Your task to perform on an android device: Search for pizza restaurants on Maps Image 0: 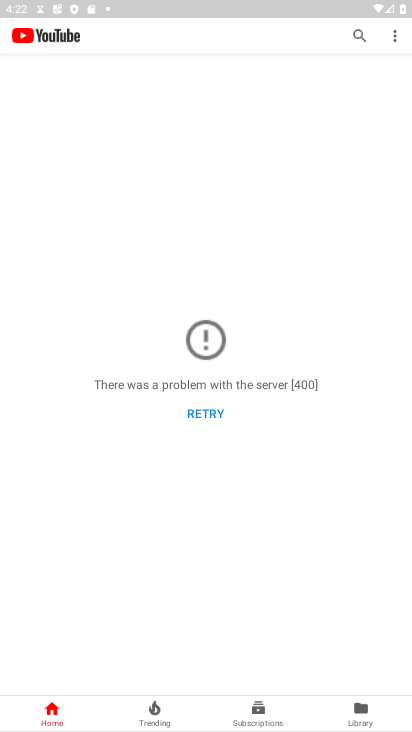
Step 0: press home button
Your task to perform on an android device: Search for pizza restaurants on Maps Image 1: 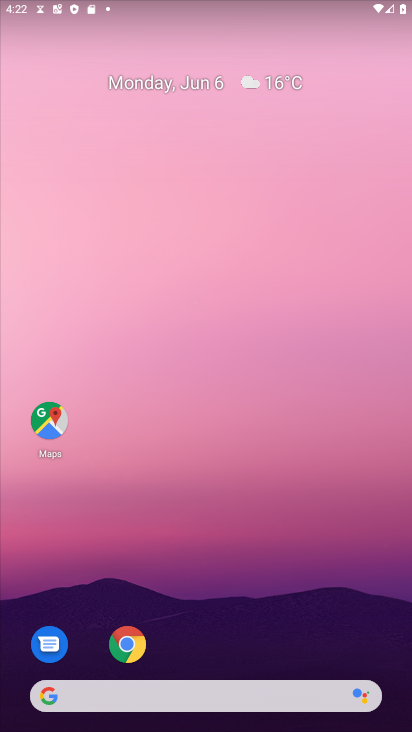
Step 1: click (28, 439)
Your task to perform on an android device: Search for pizza restaurants on Maps Image 2: 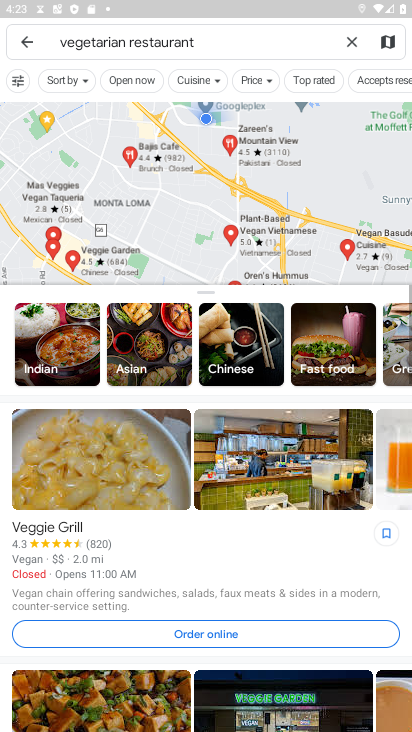
Step 2: click (357, 42)
Your task to perform on an android device: Search for pizza restaurants on Maps Image 3: 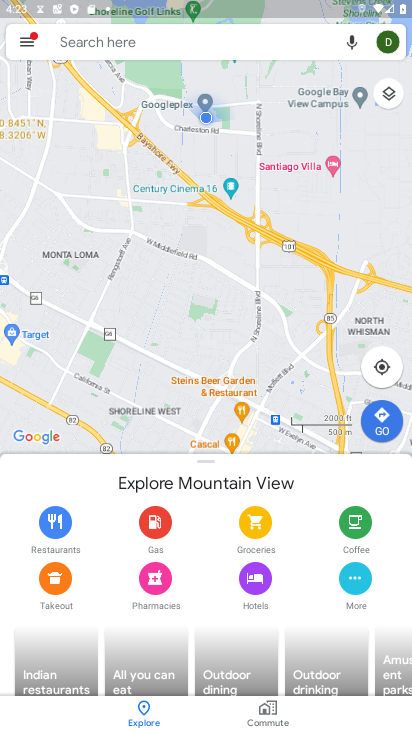
Step 3: click (125, 40)
Your task to perform on an android device: Search for pizza restaurants on Maps Image 4: 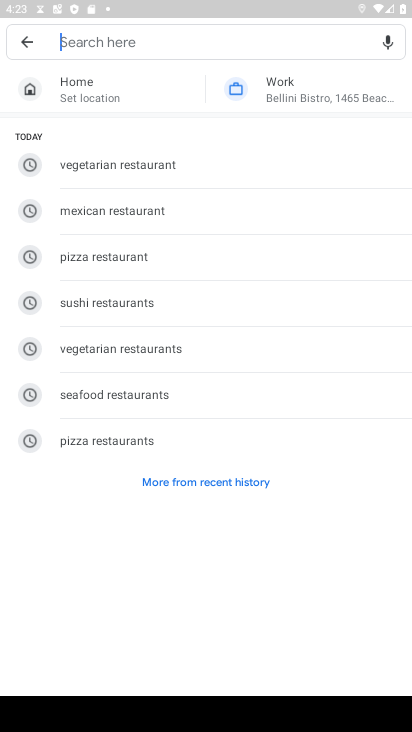
Step 4: click (132, 441)
Your task to perform on an android device: Search for pizza restaurants on Maps Image 5: 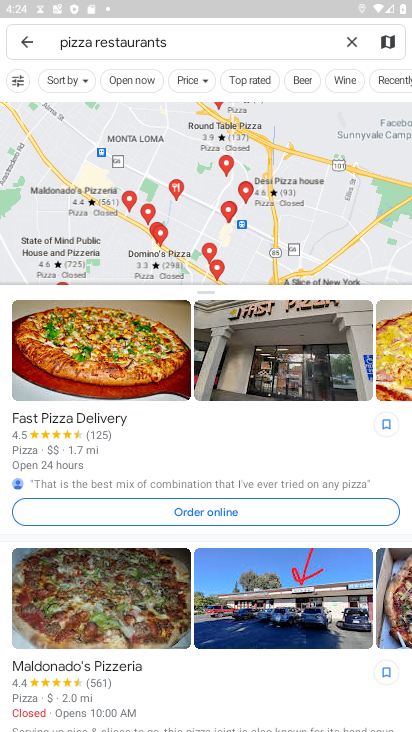
Step 5: task complete